Your task to perform on an android device: allow cookies in the chrome app Image 0: 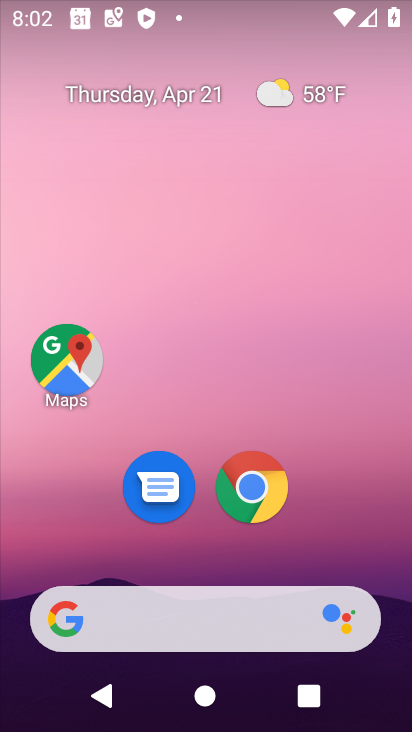
Step 0: drag from (362, 517) to (304, 19)
Your task to perform on an android device: allow cookies in the chrome app Image 1: 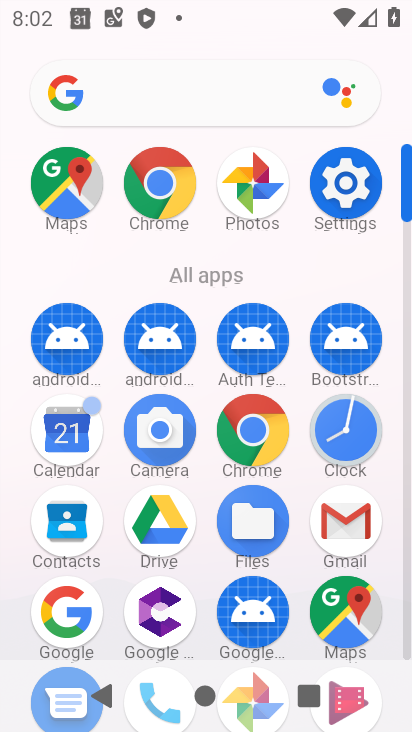
Step 1: drag from (12, 552) to (14, 246)
Your task to perform on an android device: allow cookies in the chrome app Image 2: 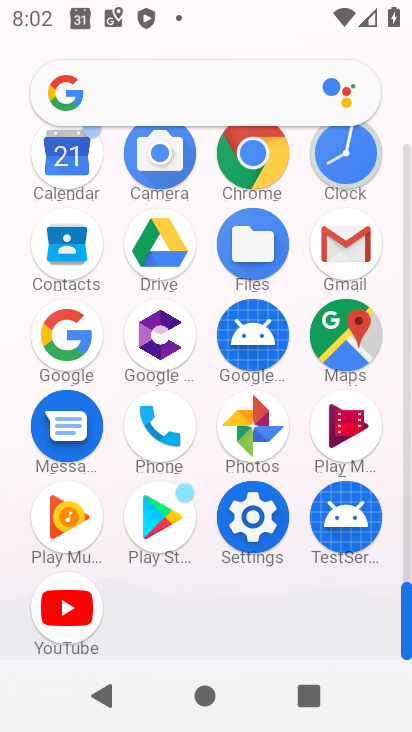
Step 2: click (252, 152)
Your task to perform on an android device: allow cookies in the chrome app Image 3: 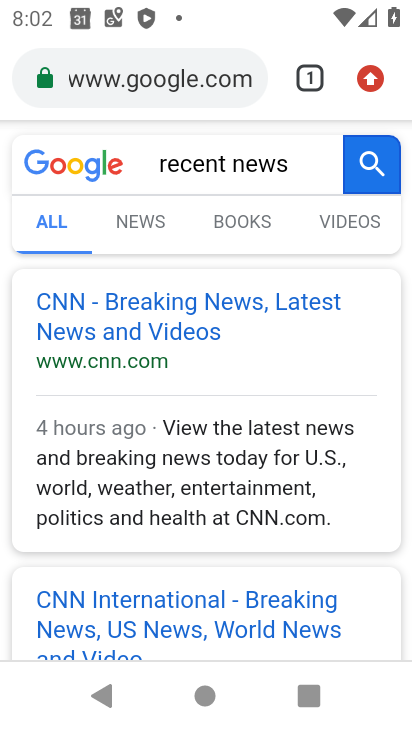
Step 3: drag from (359, 76) to (248, 541)
Your task to perform on an android device: allow cookies in the chrome app Image 4: 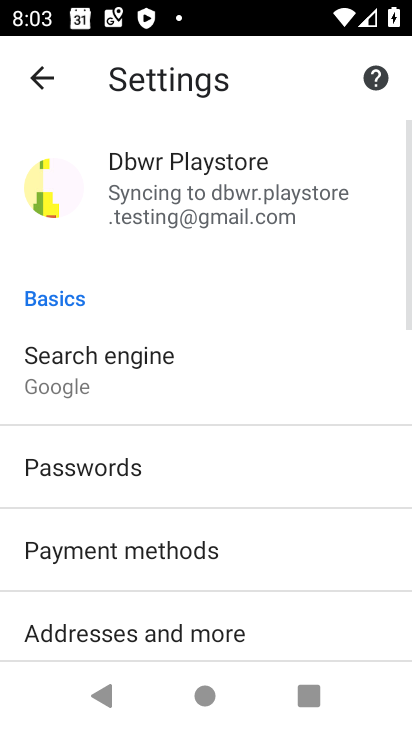
Step 4: drag from (287, 560) to (294, 174)
Your task to perform on an android device: allow cookies in the chrome app Image 5: 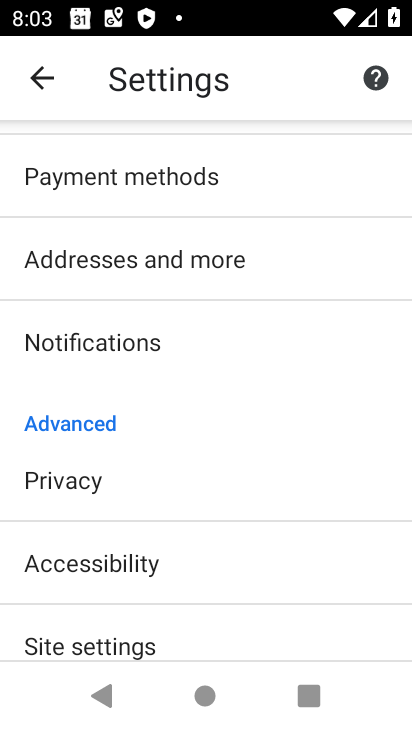
Step 5: click (153, 640)
Your task to perform on an android device: allow cookies in the chrome app Image 6: 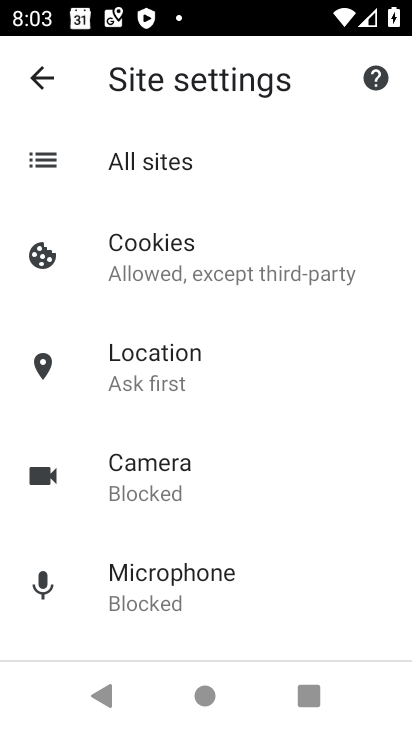
Step 6: click (188, 248)
Your task to perform on an android device: allow cookies in the chrome app Image 7: 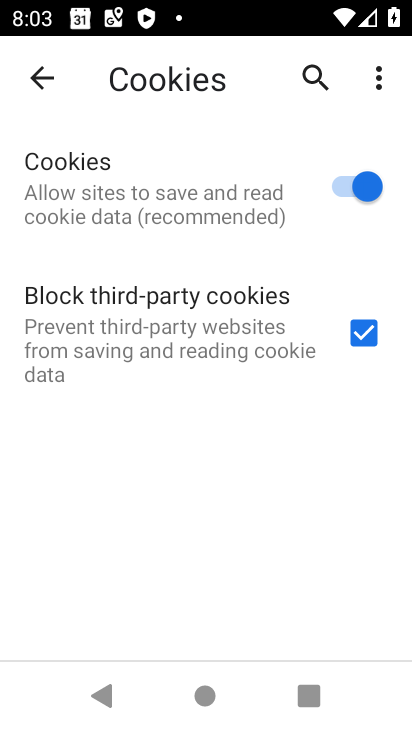
Step 7: task complete